Your task to perform on an android device: Go to Yahoo.com Image 0: 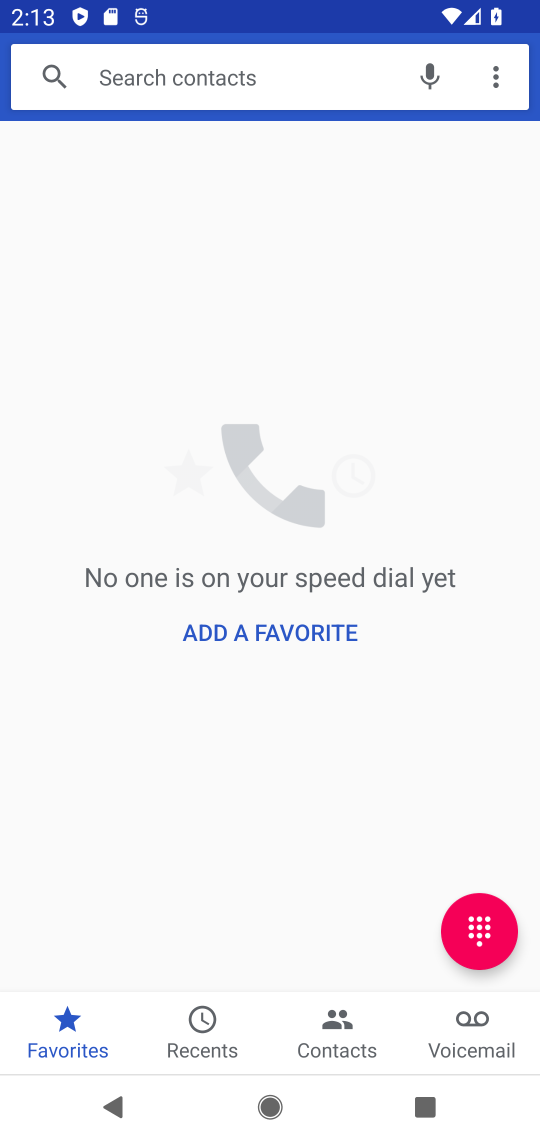
Step 0: press home button
Your task to perform on an android device: Go to Yahoo.com Image 1: 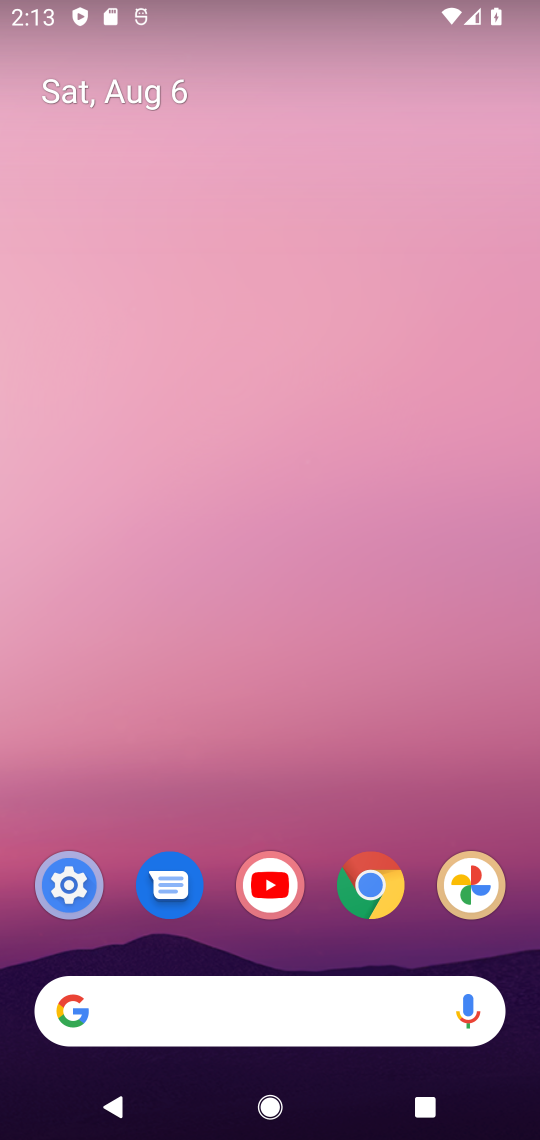
Step 1: drag from (528, 981) to (327, 36)
Your task to perform on an android device: Go to Yahoo.com Image 2: 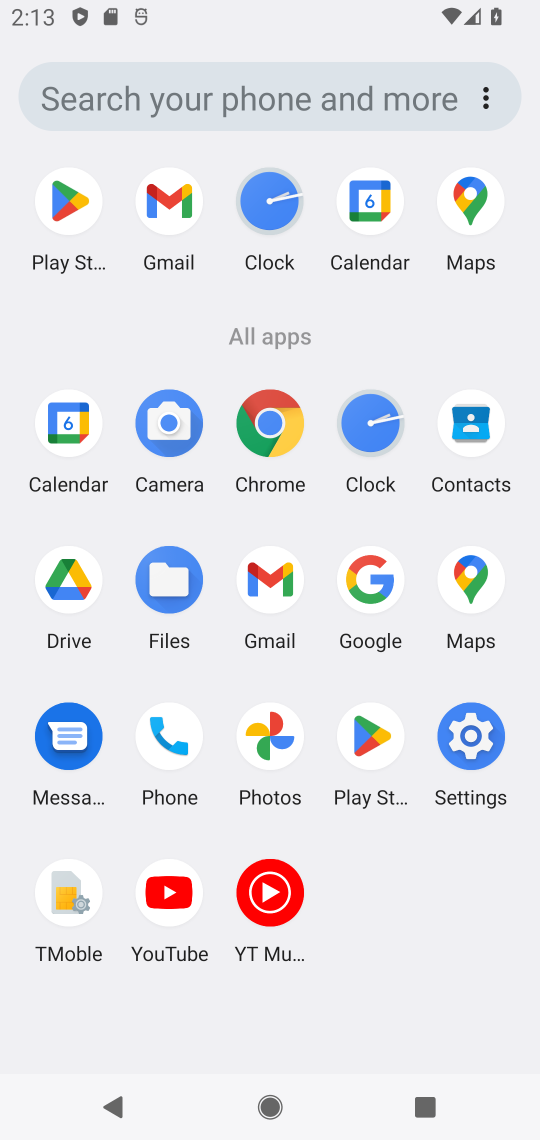
Step 2: click (368, 567)
Your task to perform on an android device: Go to Yahoo.com Image 3: 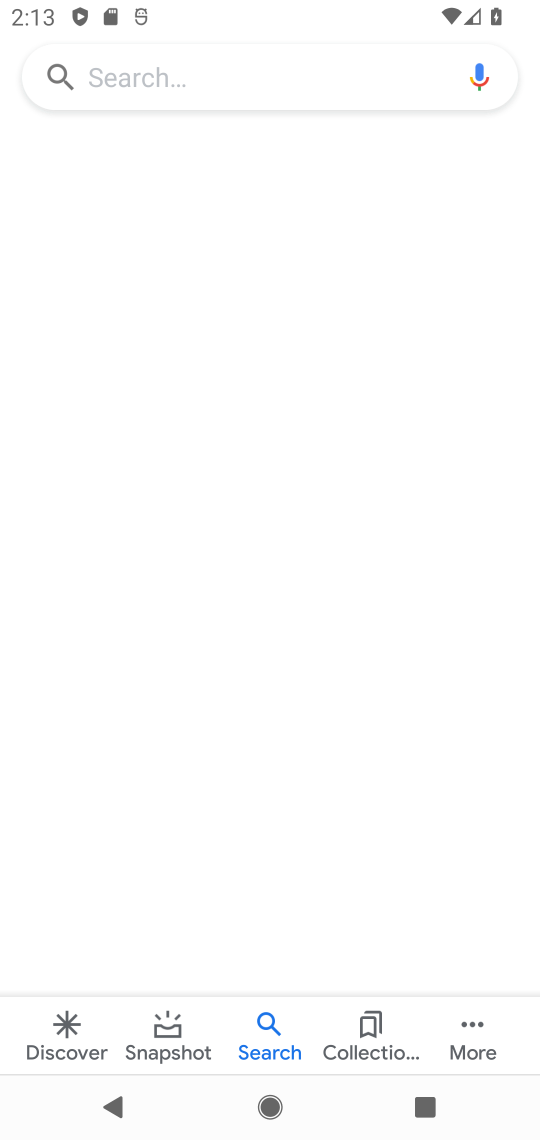
Step 3: click (184, 89)
Your task to perform on an android device: Go to Yahoo.com Image 4: 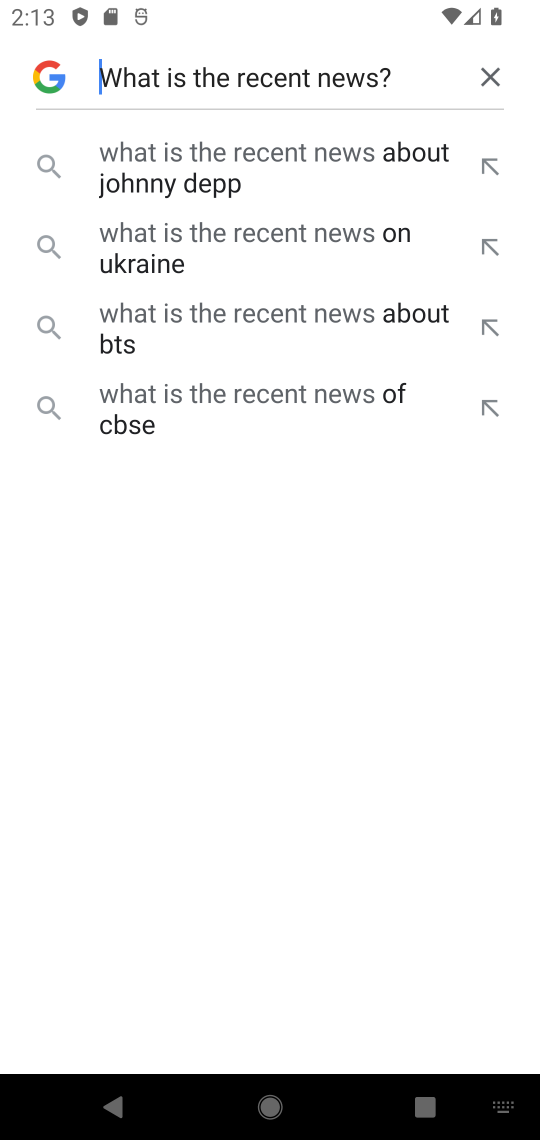
Step 4: click (486, 88)
Your task to perform on an android device: Go to Yahoo.com Image 5: 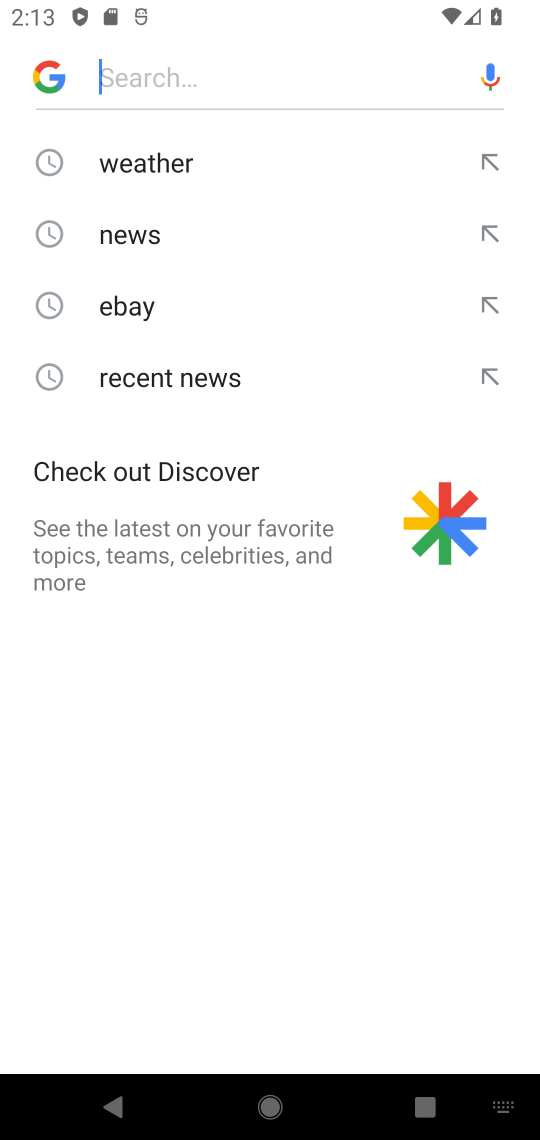
Step 5: type "Yahoo.com"
Your task to perform on an android device: Go to Yahoo.com Image 6: 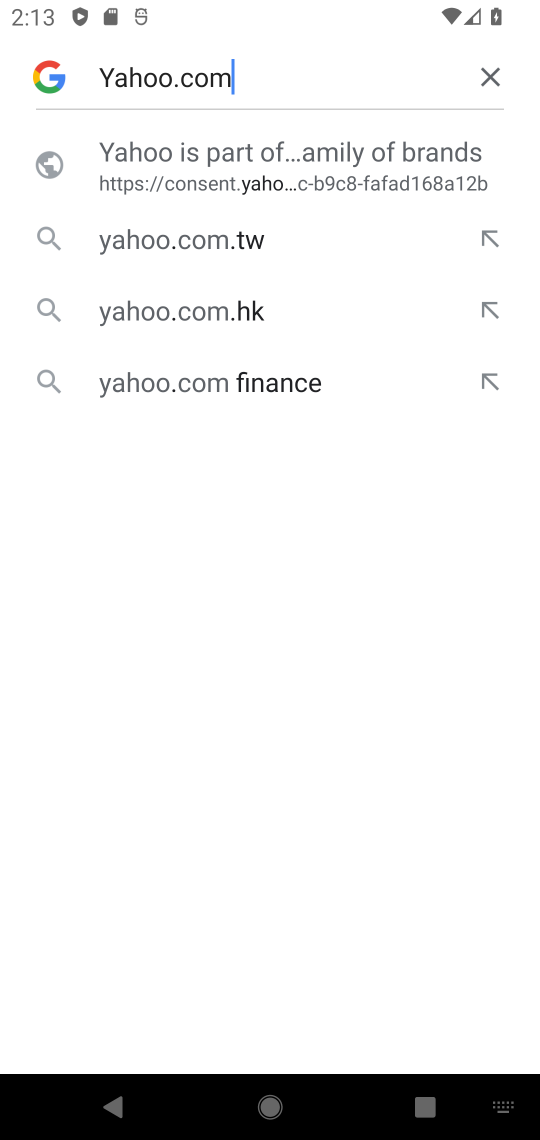
Step 6: click (207, 178)
Your task to perform on an android device: Go to Yahoo.com Image 7: 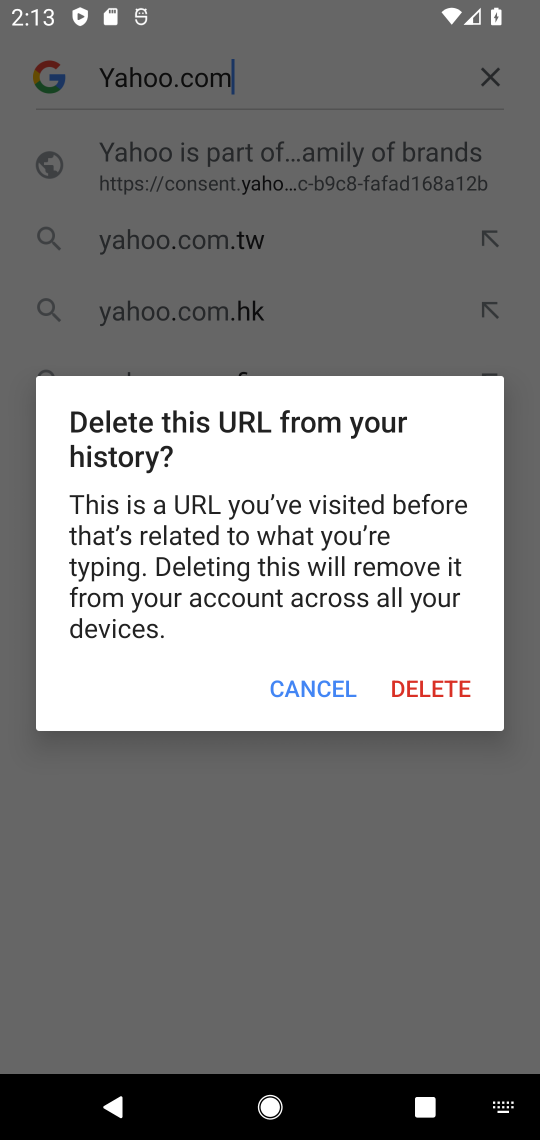
Step 7: click (304, 692)
Your task to perform on an android device: Go to Yahoo.com Image 8: 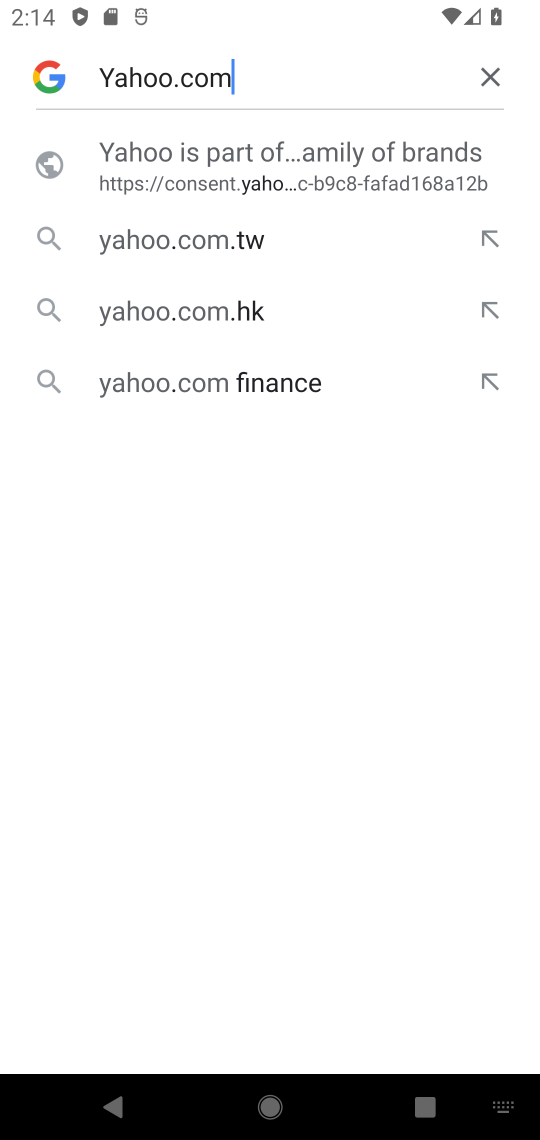
Step 8: click (279, 193)
Your task to perform on an android device: Go to Yahoo.com Image 9: 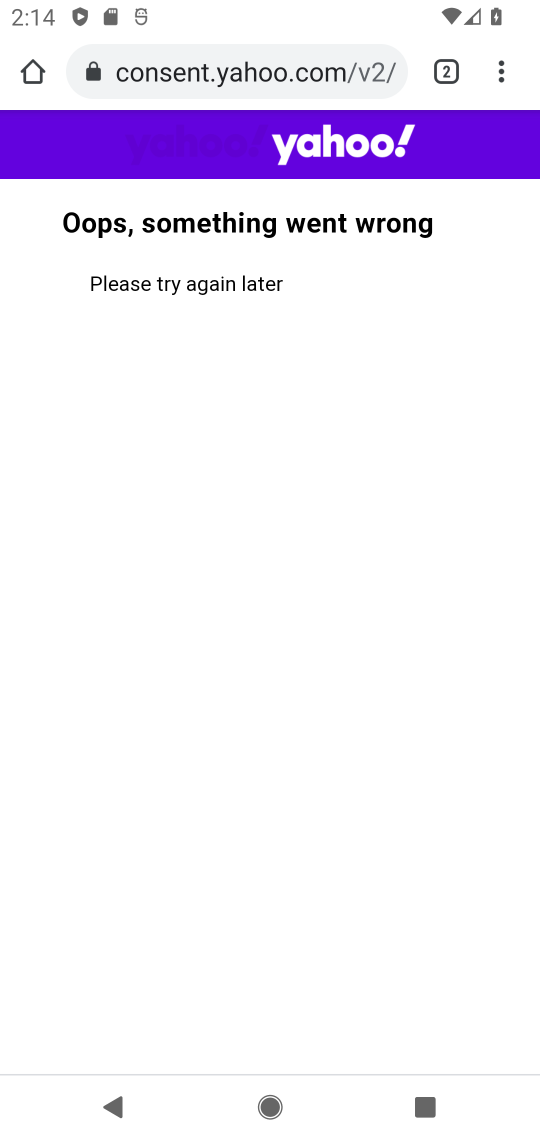
Step 9: task complete